Your task to perform on an android device: turn off location history Image 0: 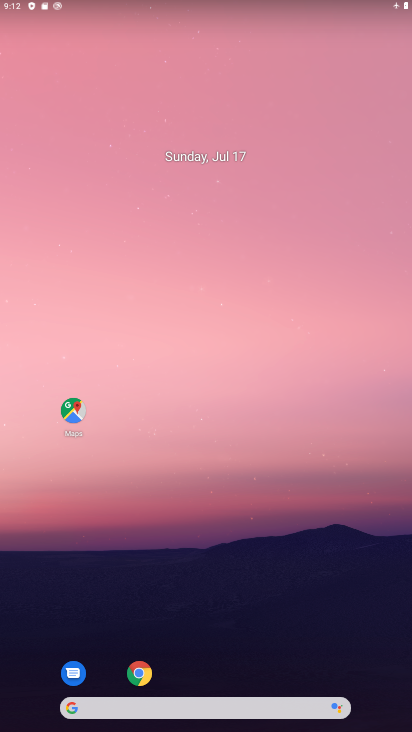
Step 0: click (74, 413)
Your task to perform on an android device: turn off location history Image 1: 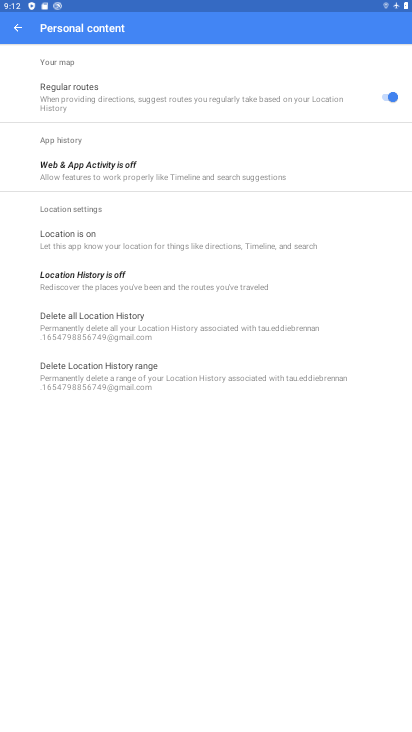
Step 1: task complete